Your task to perform on an android device: turn on bluetooth scan Image 0: 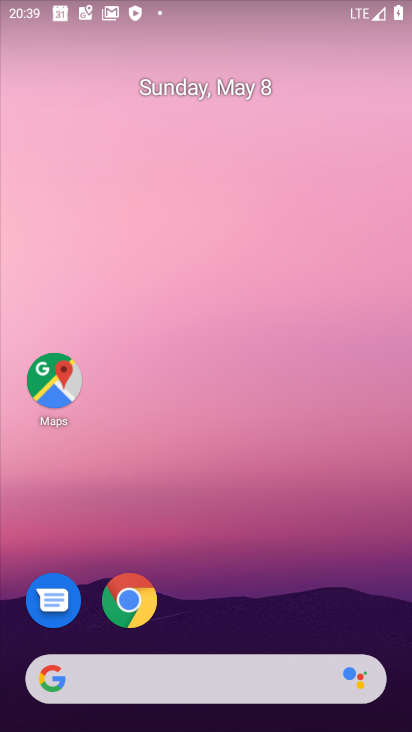
Step 0: drag from (283, 698) to (343, 303)
Your task to perform on an android device: turn on bluetooth scan Image 1: 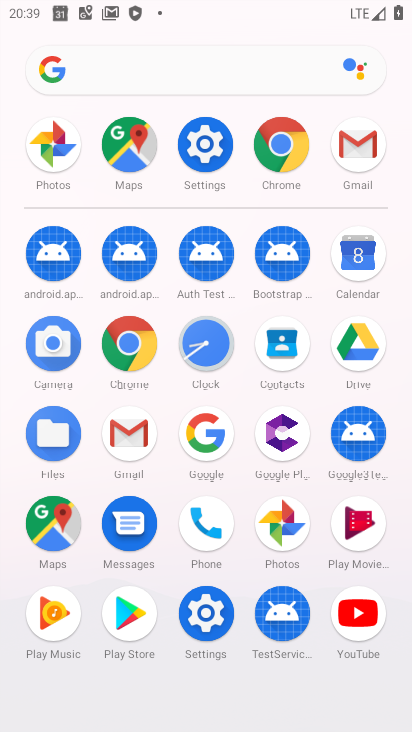
Step 1: click (198, 149)
Your task to perform on an android device: turn on bluetooth scan Image 2: 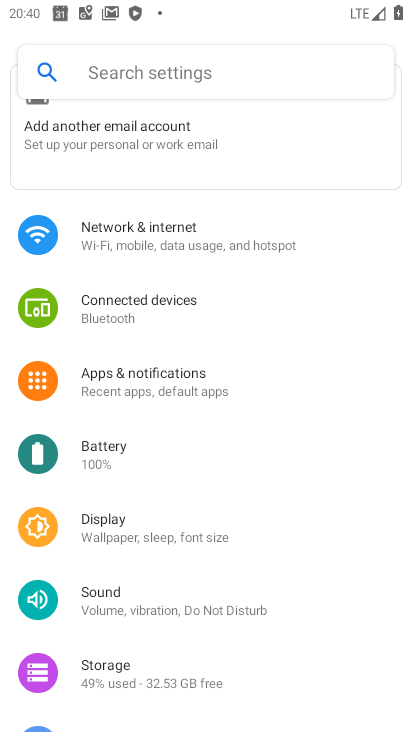
Step 2: click (188, 73)
Your task to perform on an android device: turn on bluetooth scan Image 3: 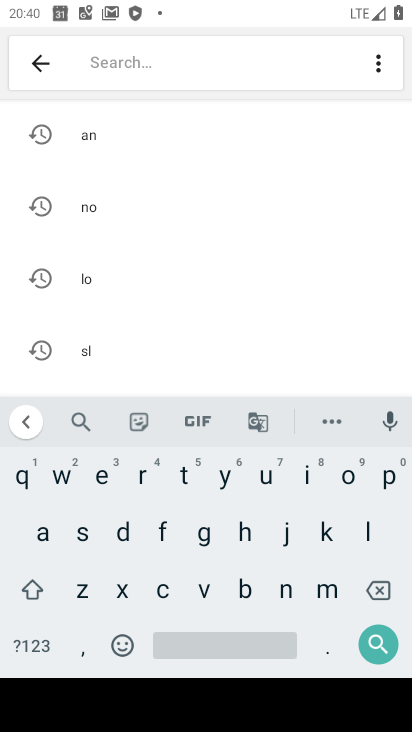
Step 3: click (372, 536)
Your task to perform on an android device: turn on bluetooth scan Image 4: 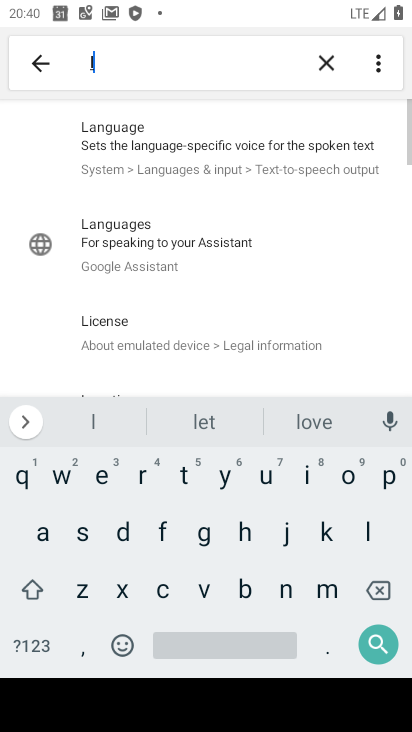
Step 4: click (345, 483)
Your task to perform on an android device: turn on bluetooth scan Image 5: 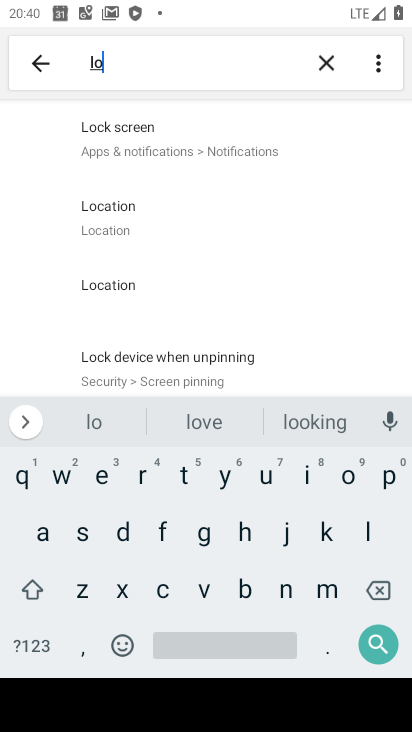
Step 5: click (166, 233)
Your task to perform on an android device: turn on bluetooth scan Image 6: 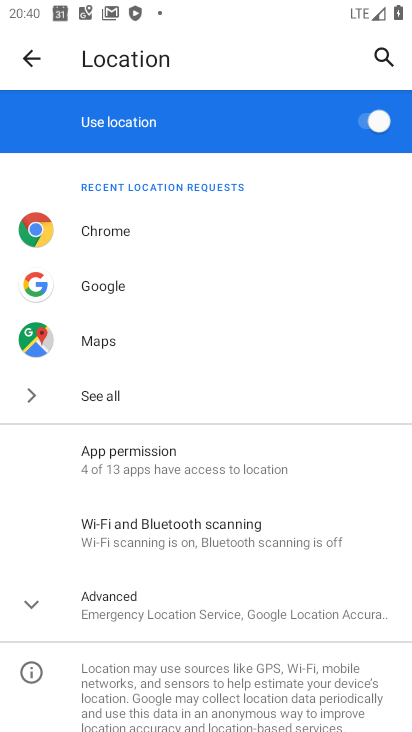
Step 6: click (166, 535)
Your task to perform on an android device: turn on bluetooth scan Image 7: 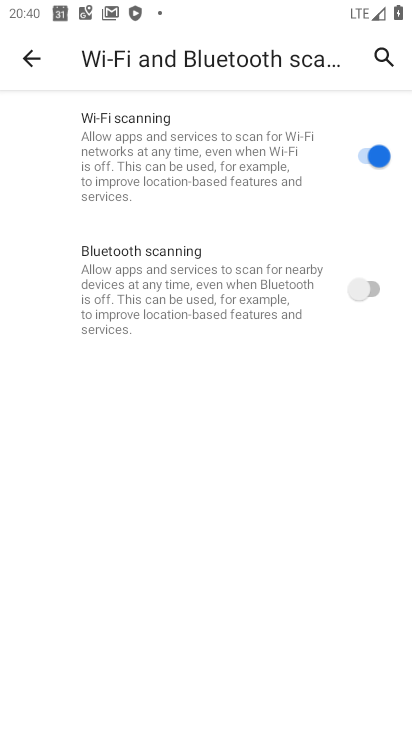
Step 7: click (346, 293)
Your task to perform on an android device: turn on bluetooth scan Image 8: 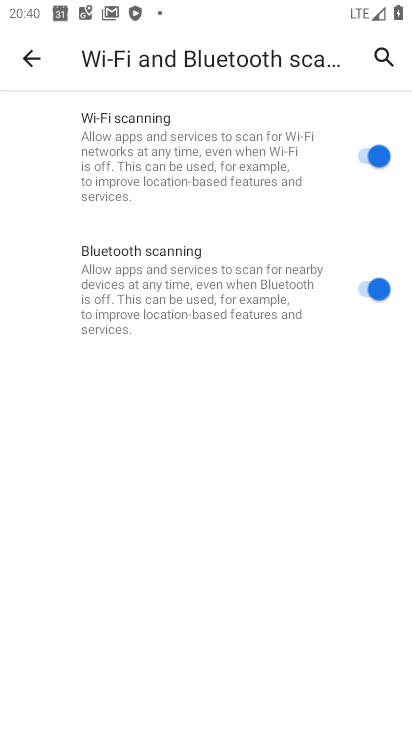
Step 8: task complete